Your task to perform on an android device: Search for Mexican restaurants on Maps Image 0: 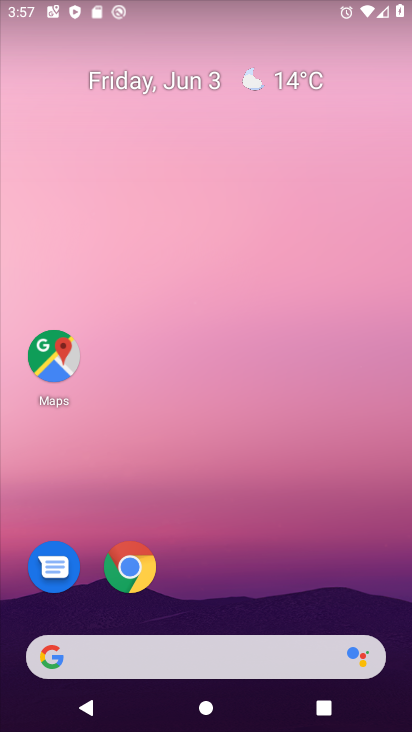
Step 0: drag from (291, 520) to (227, 102)
Your task to perform on an android device: Search for Mexican restaurants on Maps Image 1: 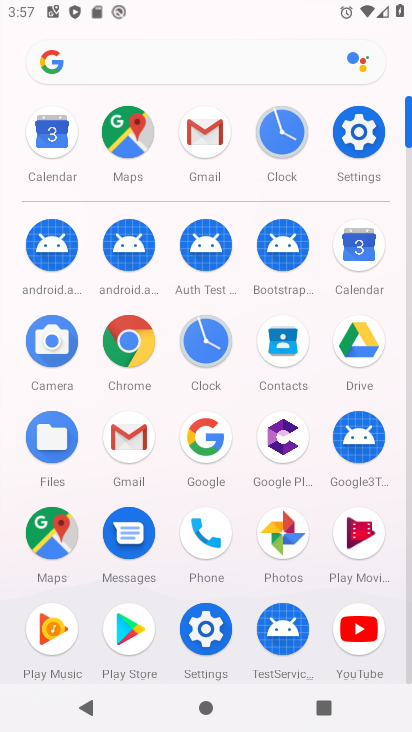
Step 1: click (56, 547)
Your task to perform on an android device: Search for Mexican restaurants on Maps Image 2: 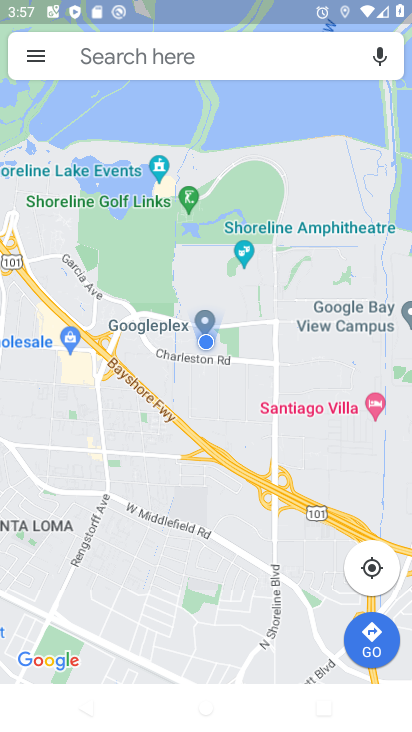
Step 2: click (135, 63)
Your task to perform on an android device: Search for Mexican restaurants on Maps Image 3: 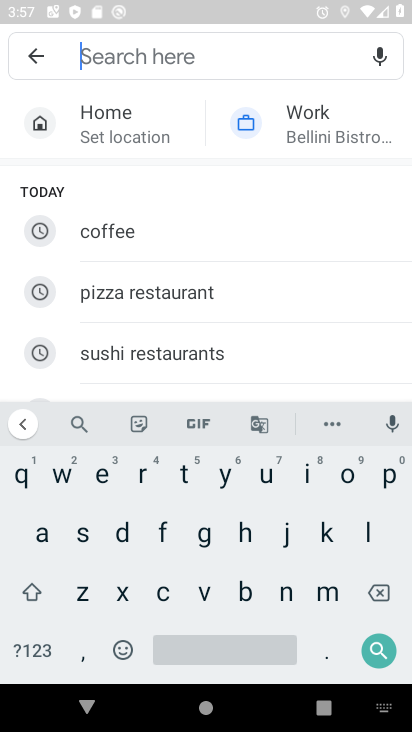
Step 3: click (331, 591)
Your task to perform on an android device: Search for Mexican restaurants on Maps Image 4: 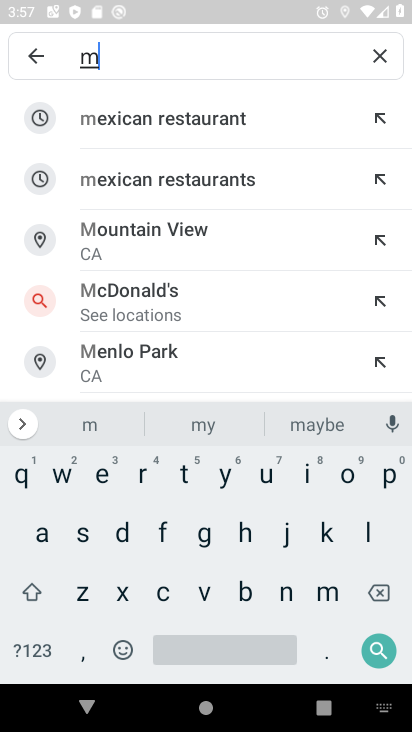
Step 4: click (206, 120)
Your task to perform on an android device: Search for Mexican restaurants on Maps Image 5: 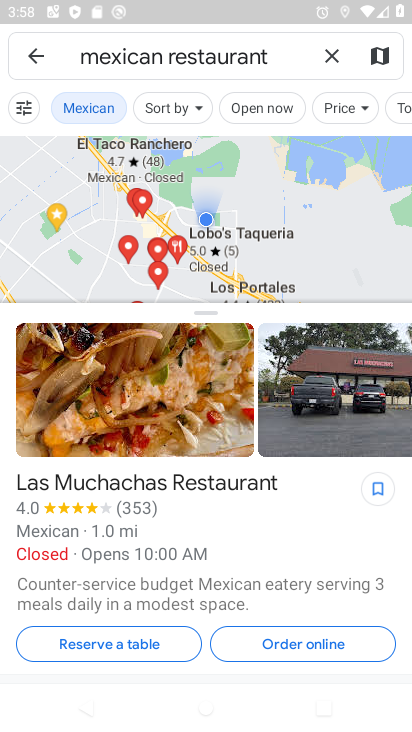
Step 5: click (104, 245)
Your task to perform on an android device: Search for Mexican restaurants on Maps Image 6: 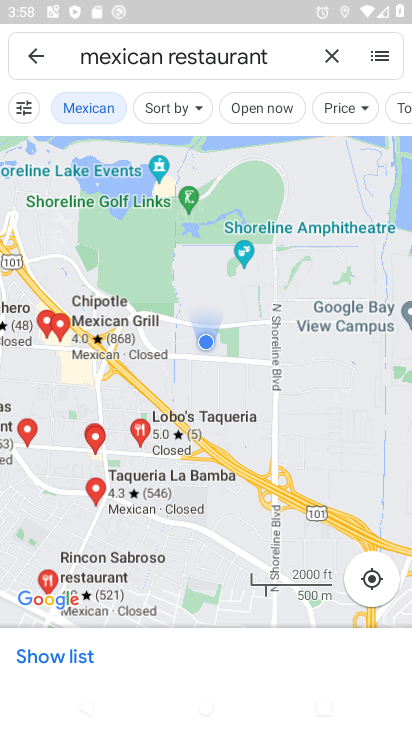
Step 6: task complete